Your task to perform on an android device: Play the last video I watched on Youtube Image 0: 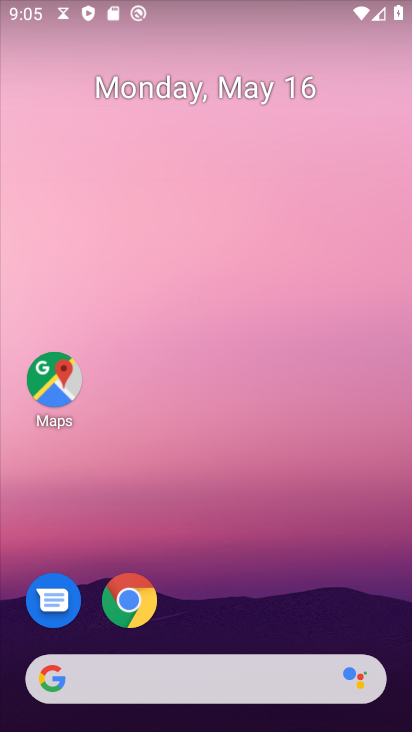
Step 0: drag from (253, 599) to (321, 5)
Your task to perform on an android device: Play the last video I watched on Youtube Image 1: 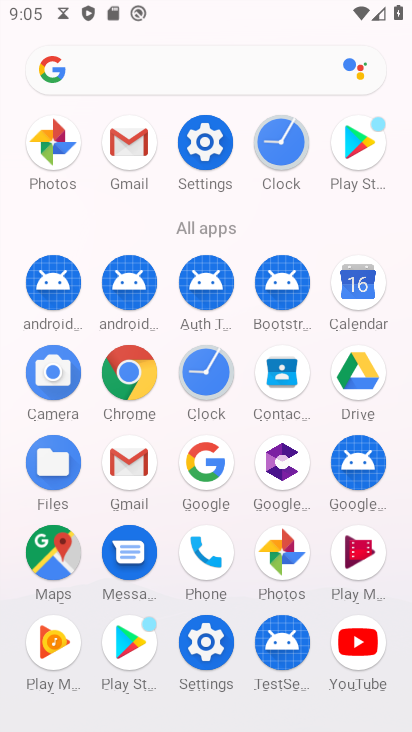
Step 1: click (364, 640)
Your task to perform on an android device: Play the last video I watched on Youtube Image 2: 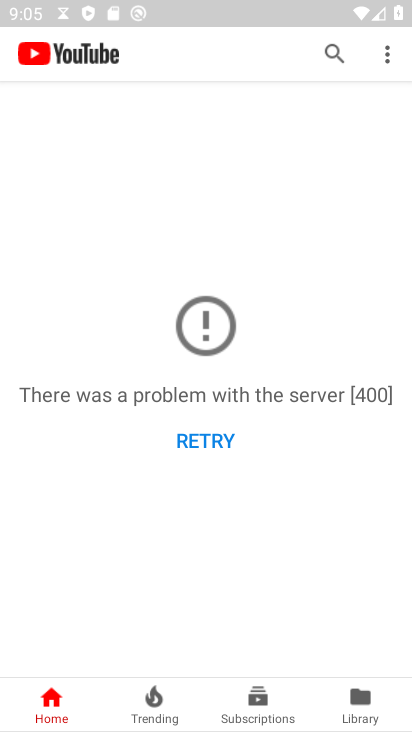
Step 2: click (359, 703)
Your task to perform on an android device: Play the last video I watched on Youtube Image 3: 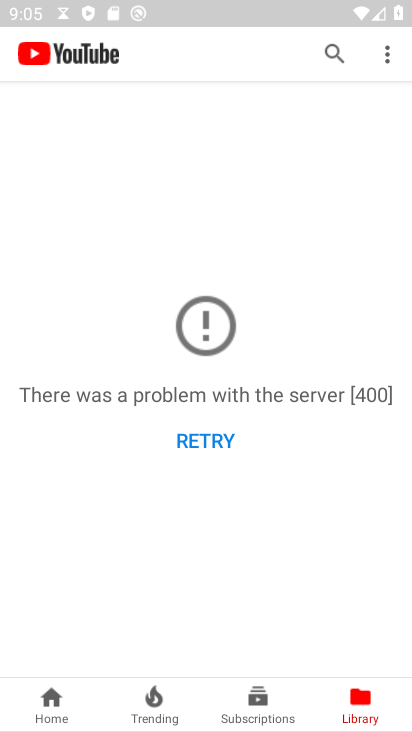
Step 3: click (367, 719)
Your task to perform on an android device: Play the last video I watched on Youtube Image 4: 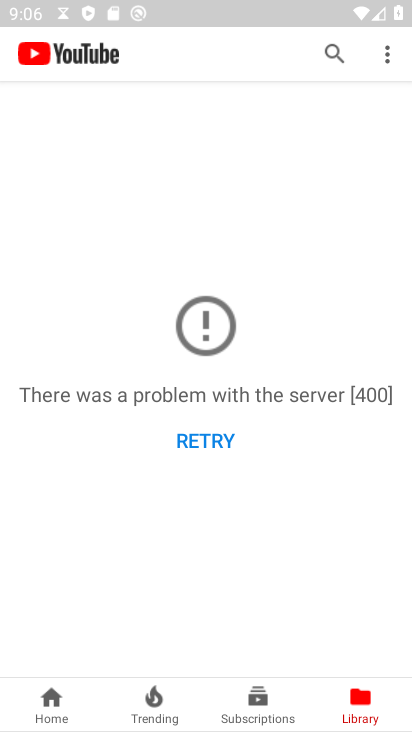
Step 4: task complete